Your task to perform on an android device: Open the calendar and show me this week's events? Image 0: 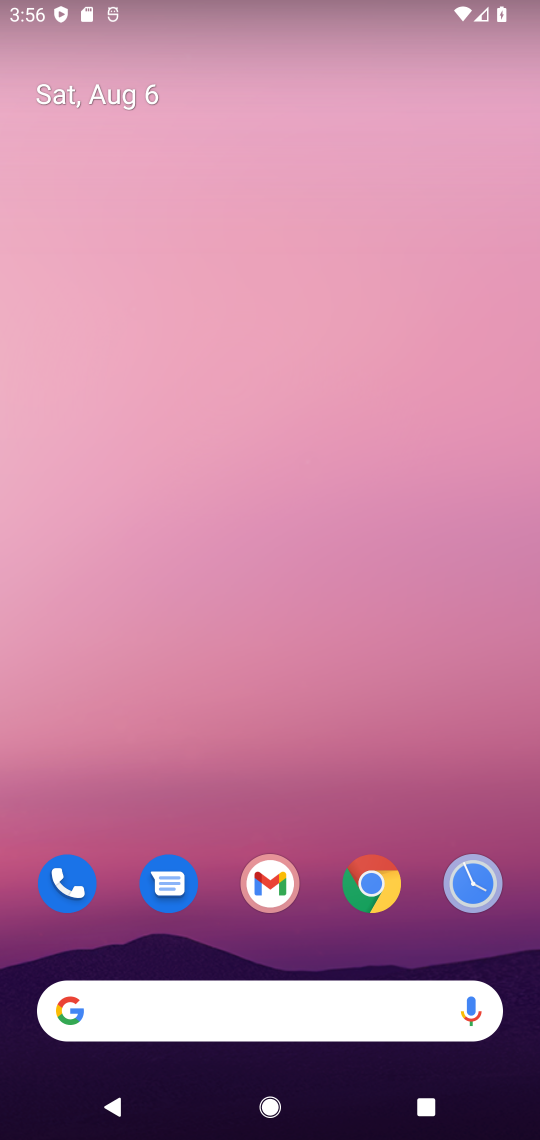
Step 0: drag from (324, 886) to (235, 19)
Your task to perform on an android device: Open the calendar and show me this week's events? Image 1: 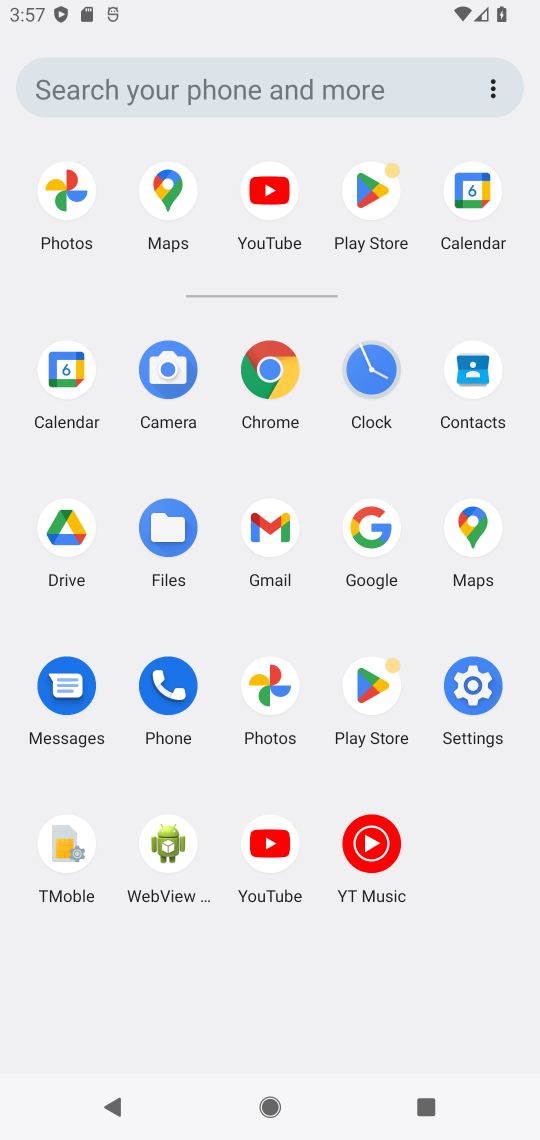
Step 1: click (66, 384)
Your task to perform on an android device: Open the calendar and show me this week's events? Image 2: 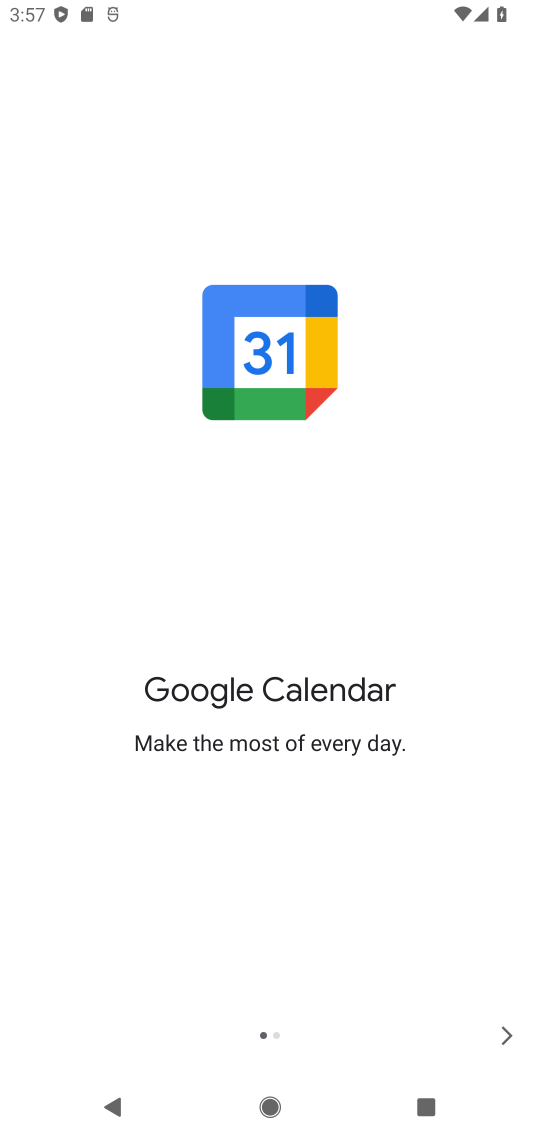
Step 2: click (513, 1035)
Your task to perform on an android device: Open the calendar and show me this week's events? Image 3: 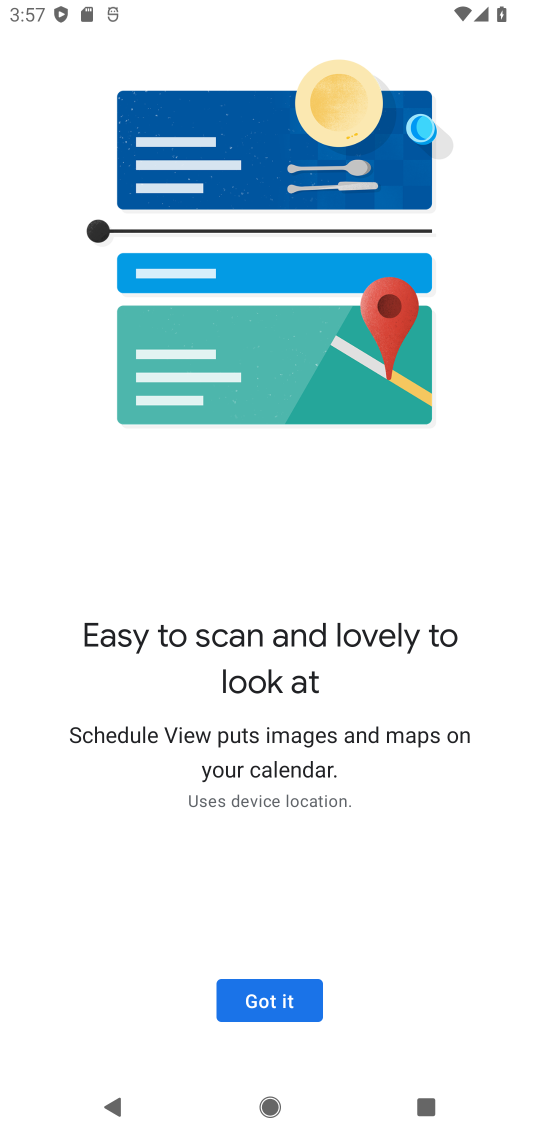
Step 3: click (305, 1008)
Your task to perform on an android device: Open the calendar and show me this week's events? Image 4: 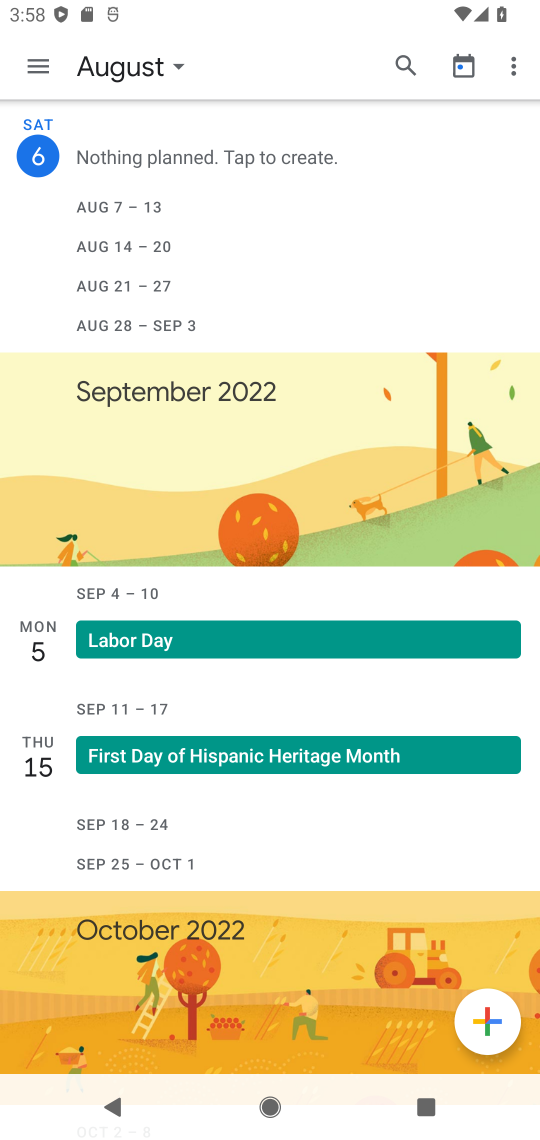
Step 4: task complete